Your task to perform on an android device: open the mobile data screen to see how much data has been used Image 0: 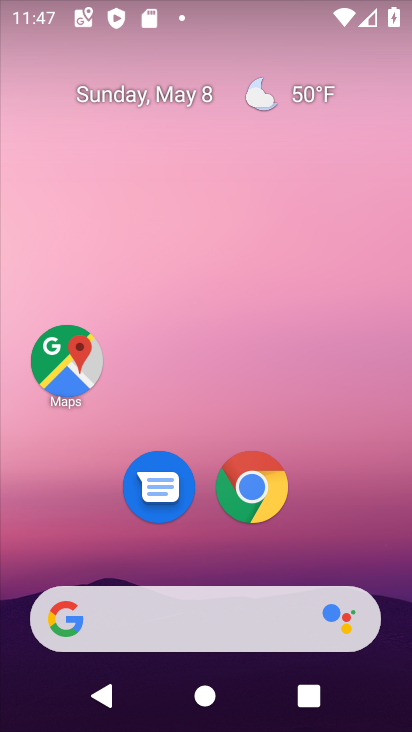
Step 0: drag from (351, 539) to (336, 108)
Your task to perform on an android device: open the mobile data screen to see how much data has been used Image 1: 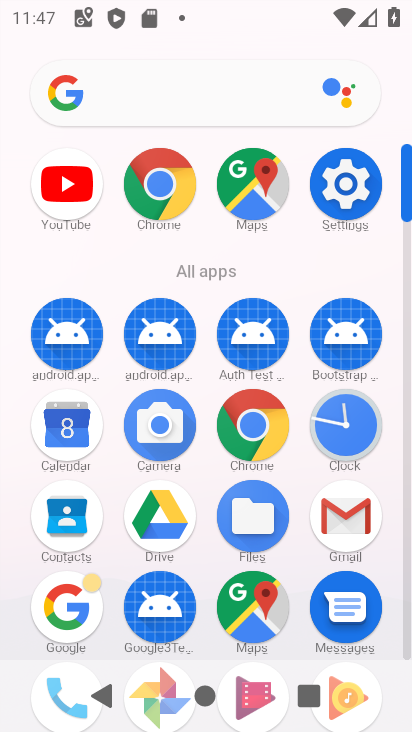
Step 1: click (331, 206)
Your task to perform on an android device: open the mobile data screen to see how much data has been used Image 2: 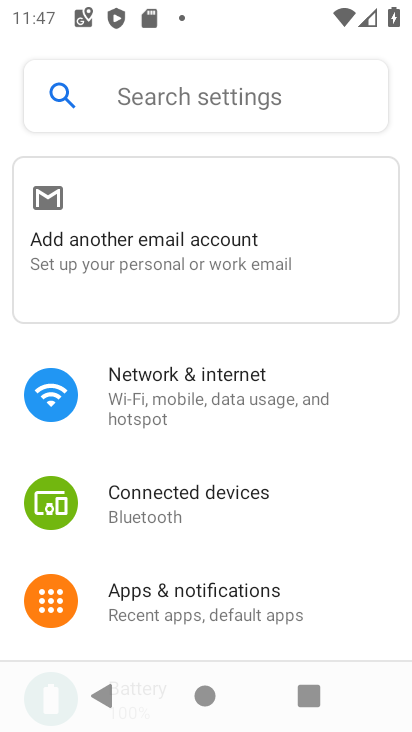
Step 2: drag from (206, 229) to (272, 67)
Your task to perform on an android device: open the mobile data screen to see how much data has been used Image 3: 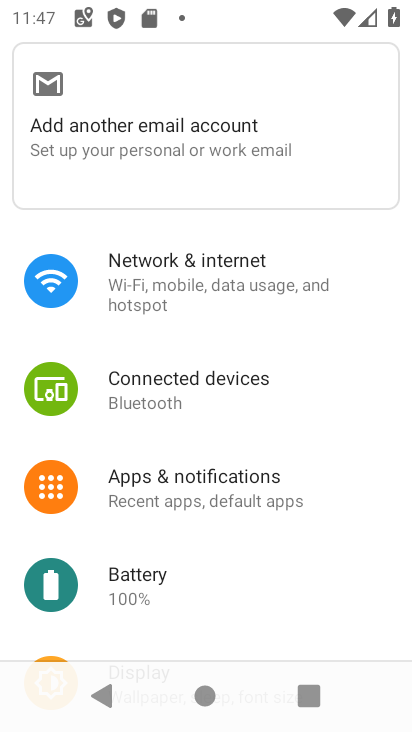
Step 3: click (243, 268)
Your task to perform on an android device: open the mobile data screen to see how much data has been used Image 4: 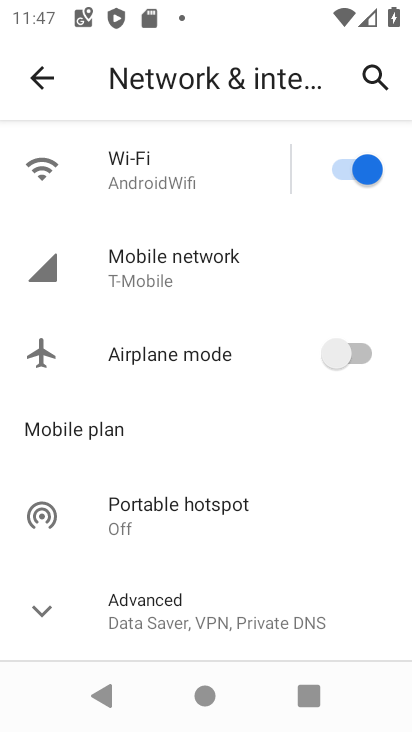
Step 4: click (197, 277)
Your task to perform on an android device: open the mobile data screen to see how much data has been used Image 5: 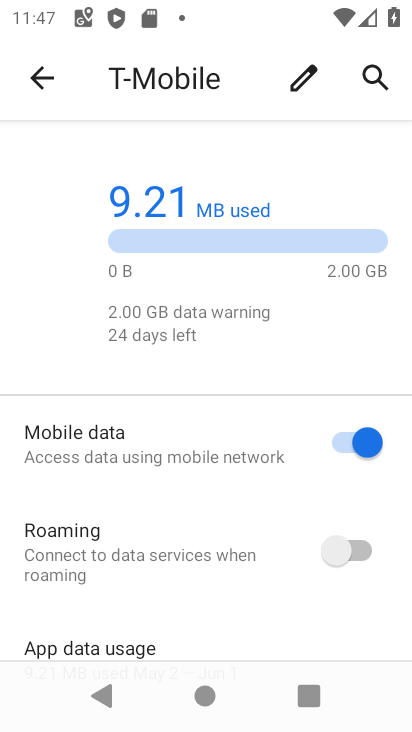
Step 5: drag from (169, 595) to (190, 301)
Your task to perform on an android device: open the mobile data screen to see how much data has been used Image 6: 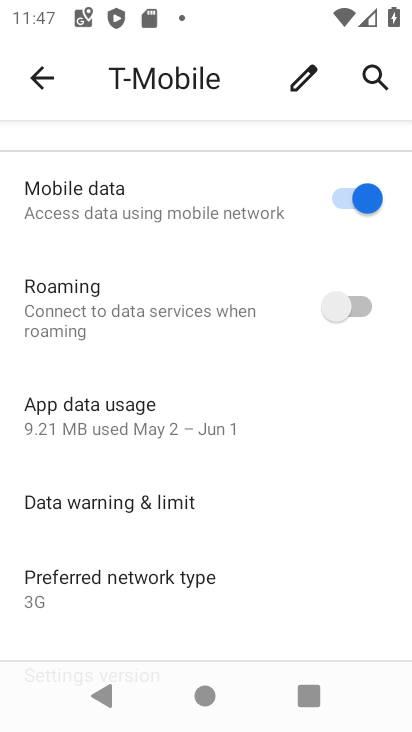
Step 6: click (174, 425)
Your task to perform on an android device: open the mobile data screen to see how much data has been used Image 7: 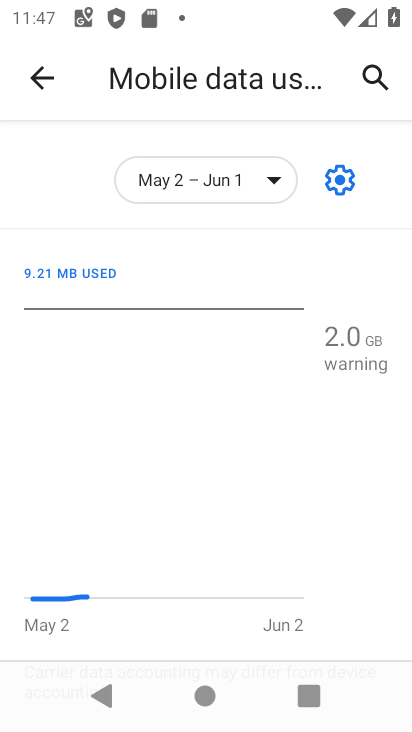
Step 7: task complete